Your task to perform on an android device: Open network settings Image 0: 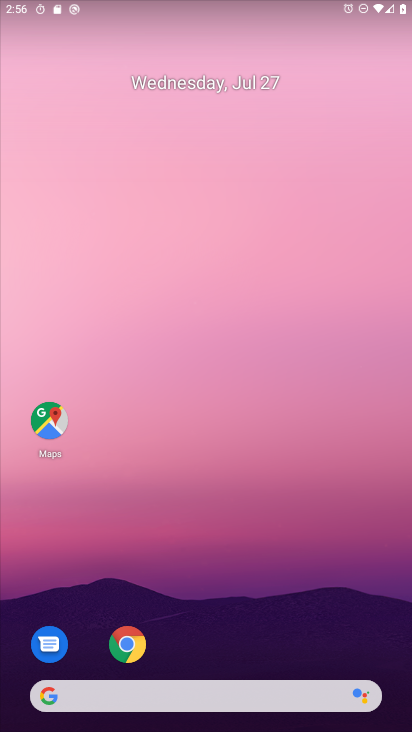
Step 0: drag from (170, 652) to (237, 190)
Your task to perform on an android device: Open network settings Image 1: 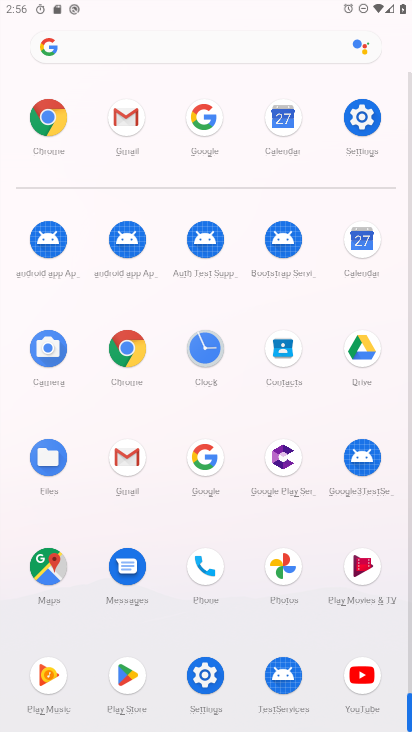
Step 1: click (208, 677)
Your task to perform on an android device: Open network settings Image 2: 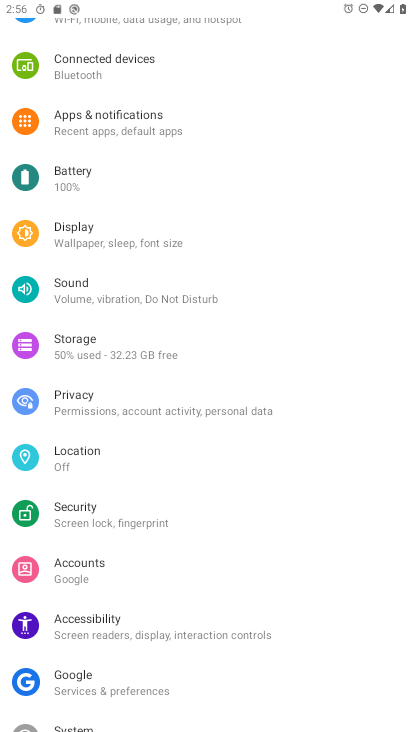
Step 2: drag from (135, 87) to (162, 425)
Your task to perform on an android device: Open network settings Image 3: 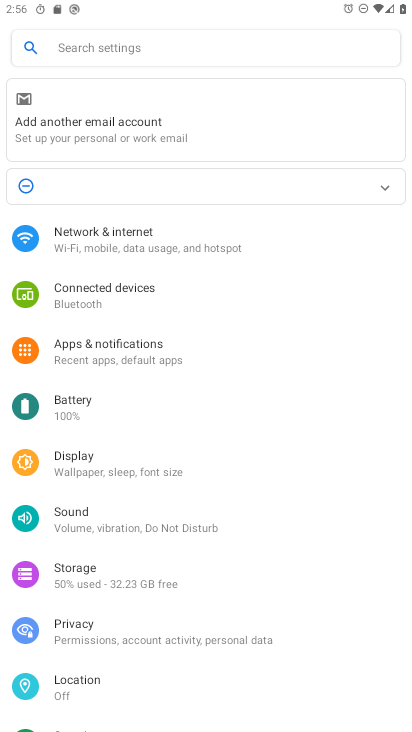
Step 3: click (103, 231)
Your task to perform on an android device: Open network settings Image 4: 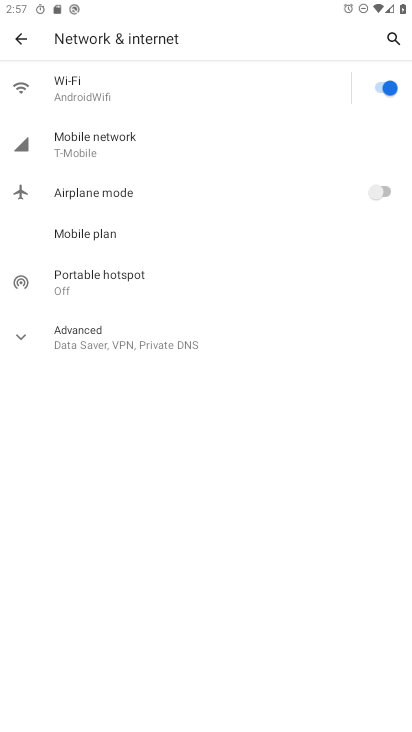
Step 4: task complete